Your task to perform on an android device: Is it going to rain today? Image 0: 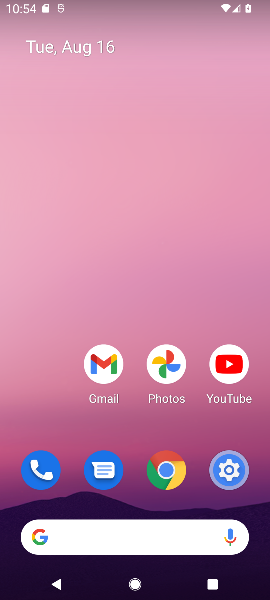
Step 0: click (102, 530)
Your task to perform on an android device: Is it going to rain today? Image 1: 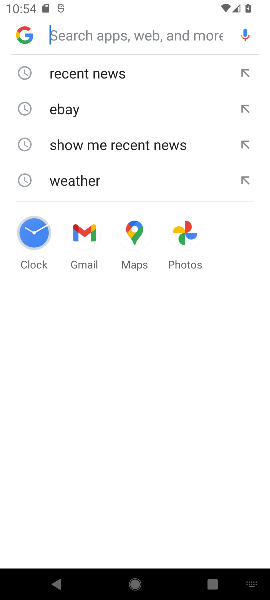
Step 1: click (79, 183)
Your task to perform on an android device: Is it going to rain today? Image 2: 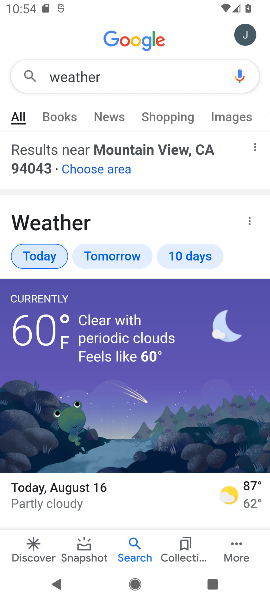
Step 2: click (34, 254)
Your task to perform on an android device: Is it going to rain today? Image 3: 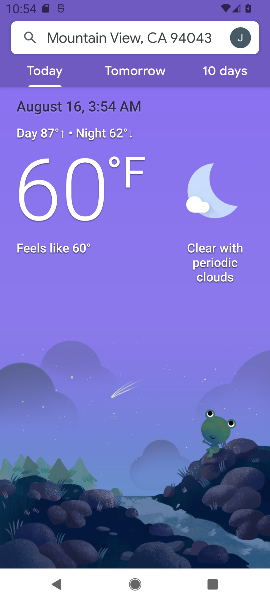
Step 3: task complete